Your task to perform on an android device: toggle priority inbox in the gmail app Image 0: 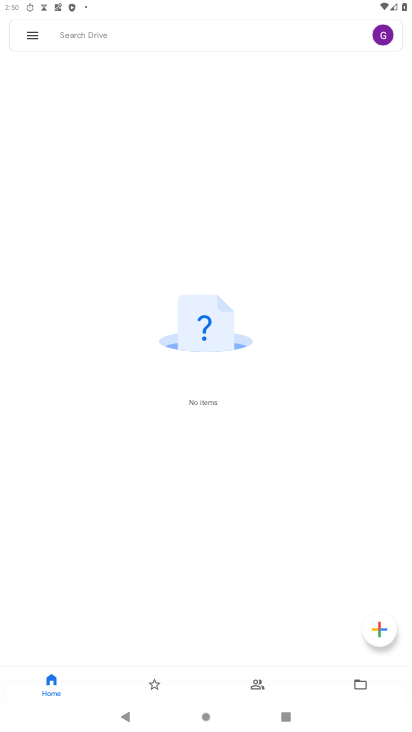
Step 0: press home button
Your task to perform on an android device: toggle priority inbox in the gmail app Image 1: 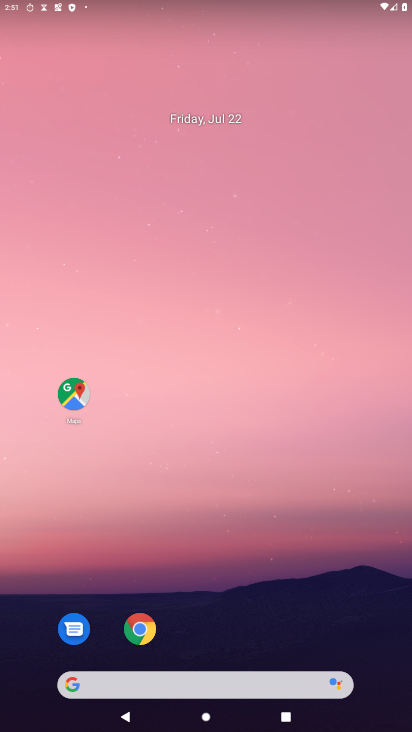
Step 1: drag from (249, 637) to (332, 1)
Your task to perform on an android device: toggle priority inbox in the gmail app Image 2: 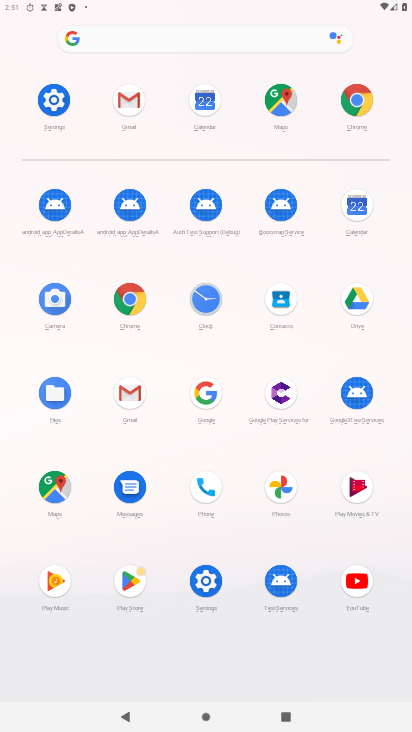
Step 2: click (132, 395)
Your task to perform on an android device: toggle priority inbox in the gmail app Image 3: 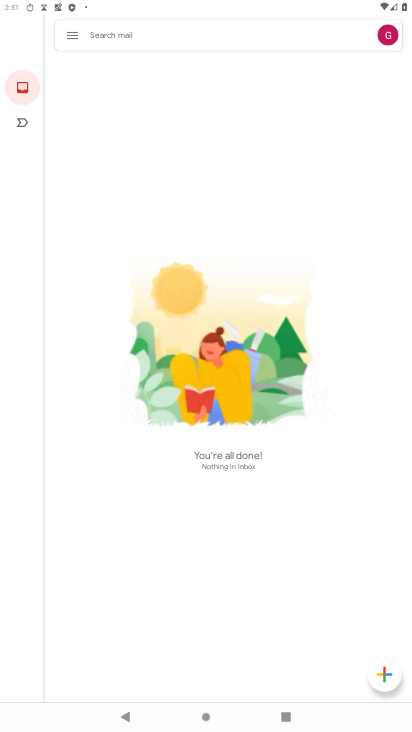
Step 3: click (60, 30)
Your task to perform on an android device: toggle priority inbox in the gmail app Image 4: 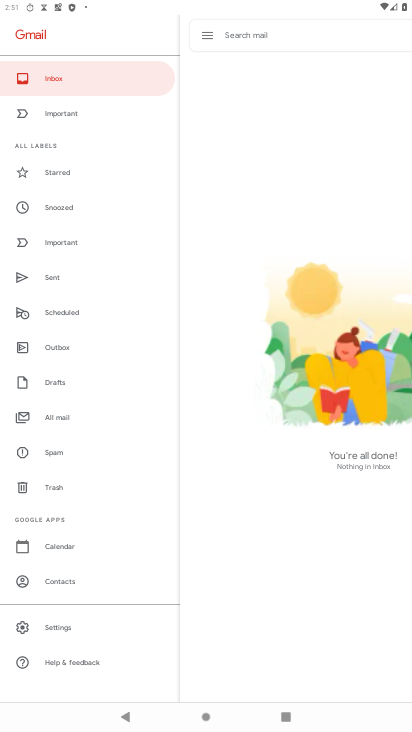
Step 4: click (75, 624)
Your task to perform on an android device: toggle priority inbox in the gmail app Image 5: 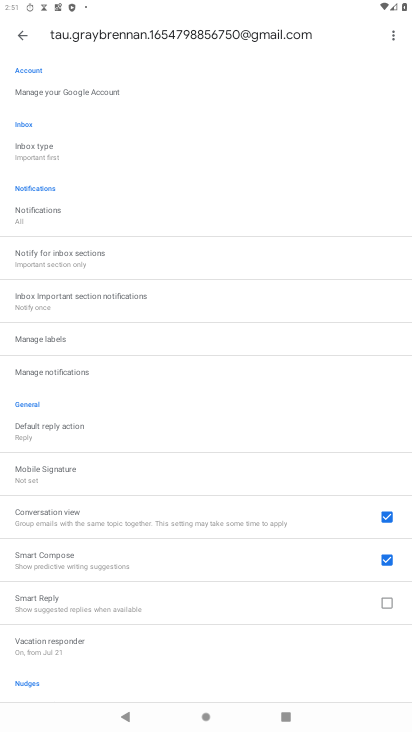
Step 5: click (51, 150)
Your task to perform on an android device: toggle priority inbox in the gmail app Image 6: 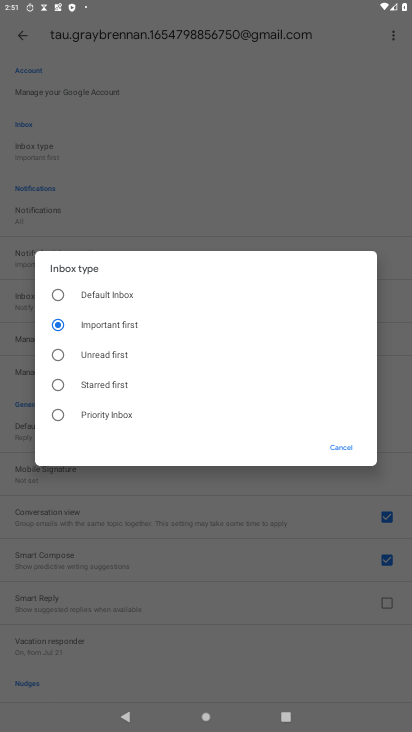
Step 6: click (66, 411)
Your task to perform on an android device: toggle priority inbox in the gmail app Image 7: 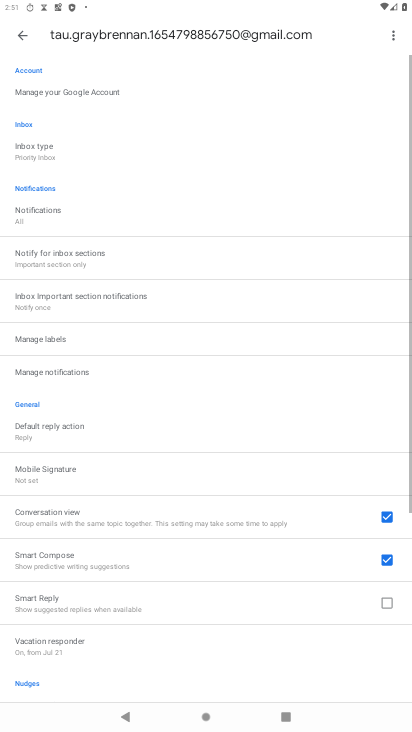
Step 7: task complete